Your task to perform on an android device: turn off airplane mode Image 0: 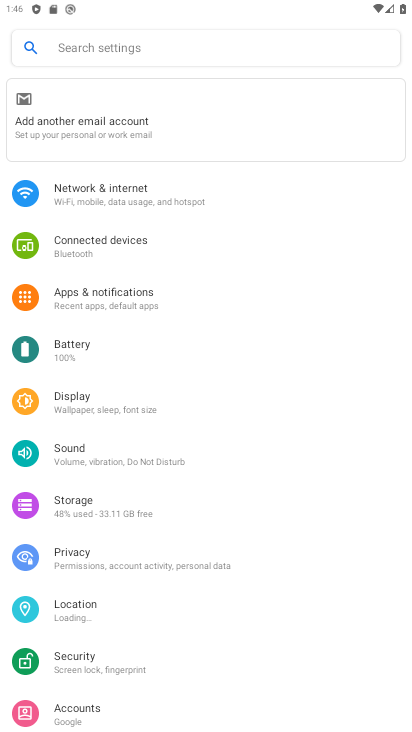
Step 0: drag from (259, 254) to (204, 715)
Your task to perform on an android device: turn off airplane mode Image 1: 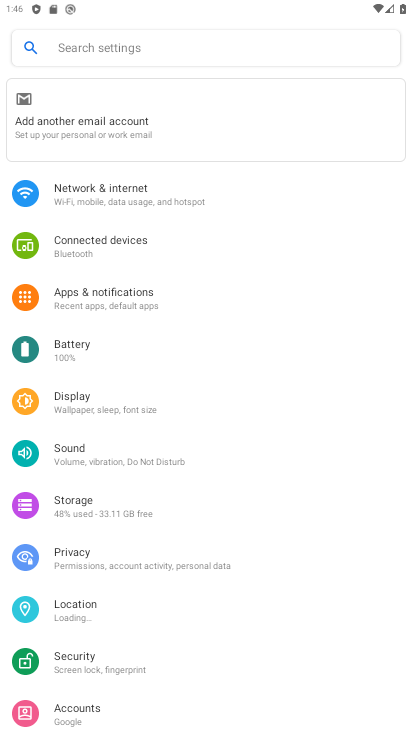
Step 1: click (135, 193)
Your task to perform on an android device: turn off airplane mode Image 2: 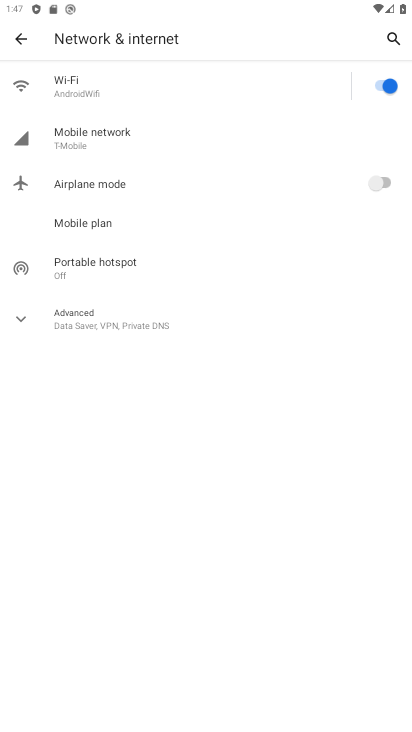
Step 2: task complete